Your task to perform on an android device: toggle pop-ups in chrome Image 0: 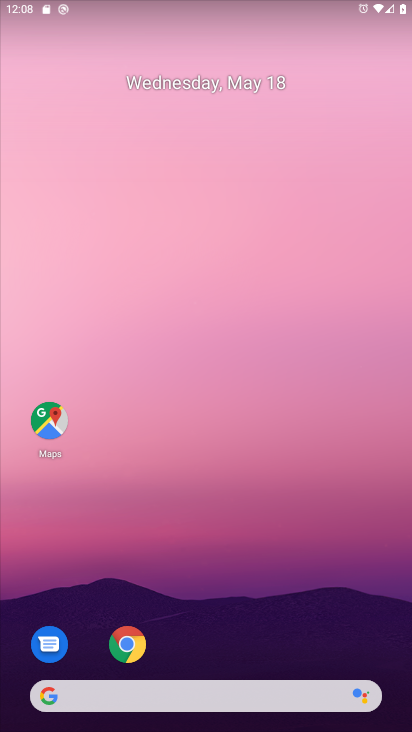
Step 0: click (126, 637)
Your task to perform on an android device: toggle pop-ups in chrome Image 1: 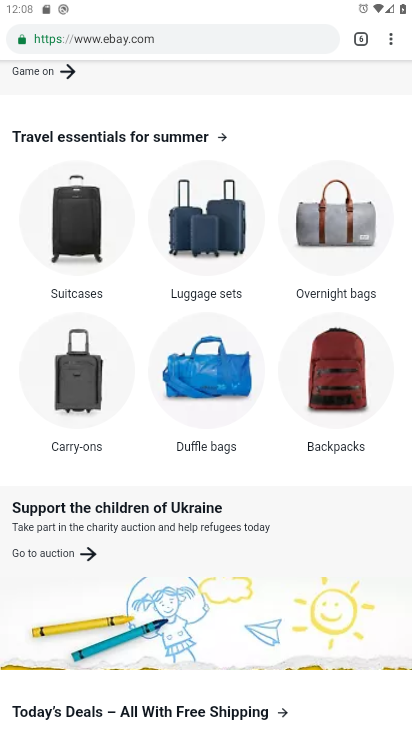
Step 1: click (389, 31)
Your task to perform on an android device: toggle pop-ups in chrome Image 2: 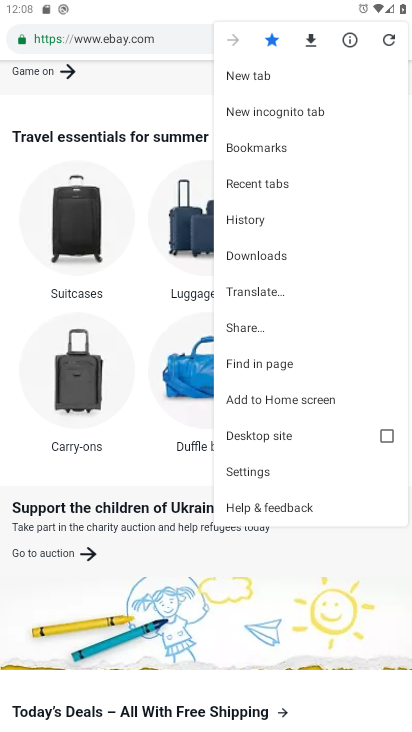
Step 2: click (286, 466)
Your task to perform on an android device: toggle pop-ups in chrome Image 3: 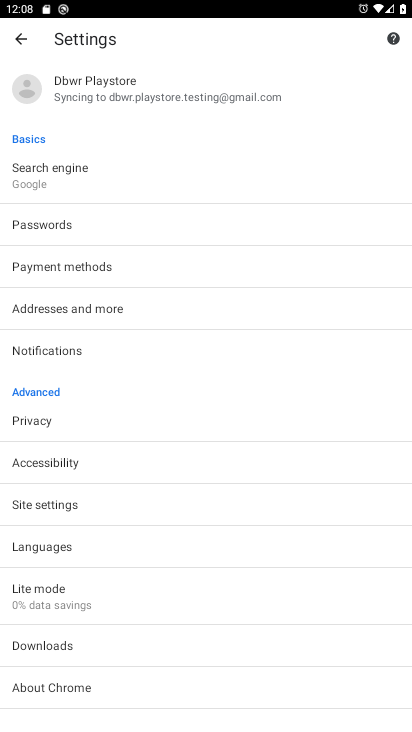
Step 3: click (81, 501)
Your task to perform on an android device: toggle pop-ups in chrome Image 4: 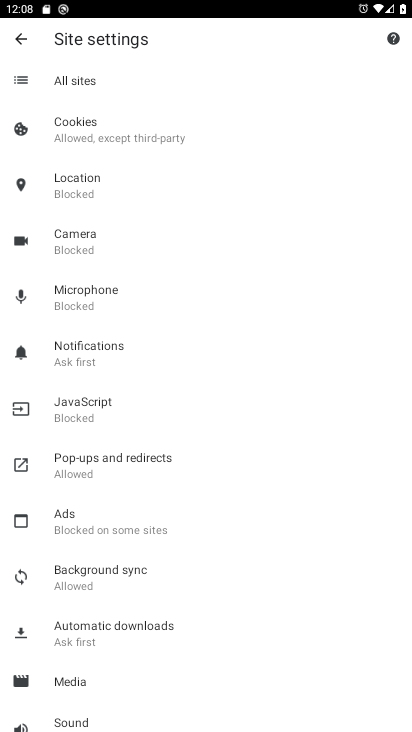
Step 4: click (107, 467)
Your task to perform on an android device: toggle pop-ups in chrome Image 5: 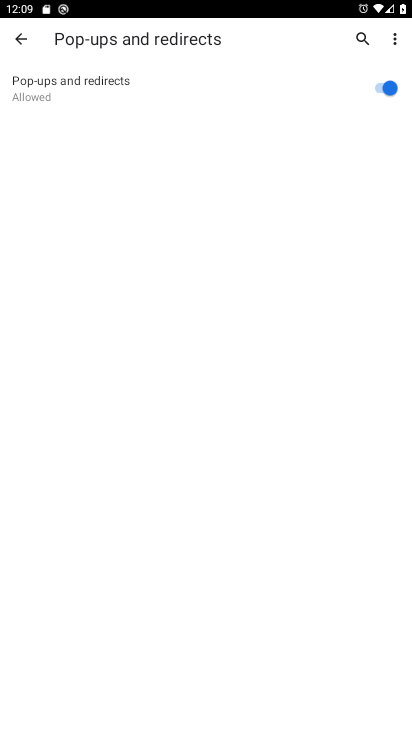
Step 5: click (385, 86)
Your task to perform on an android device: toggle pop-ups in chrome Image 6: 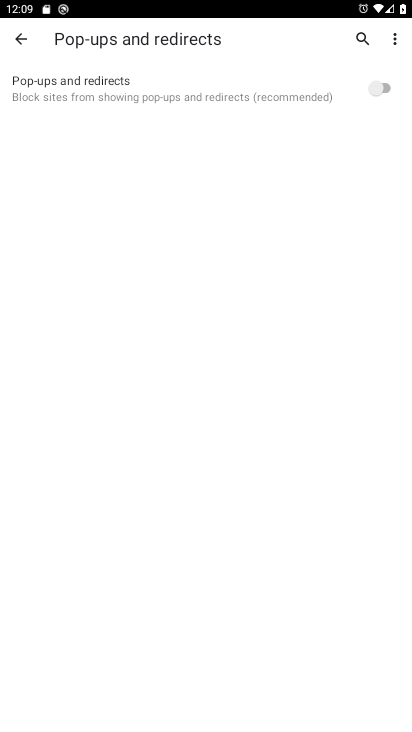
Step 6: task complete